Your task to perform on an android device: star an email in the gmail app Image 0: 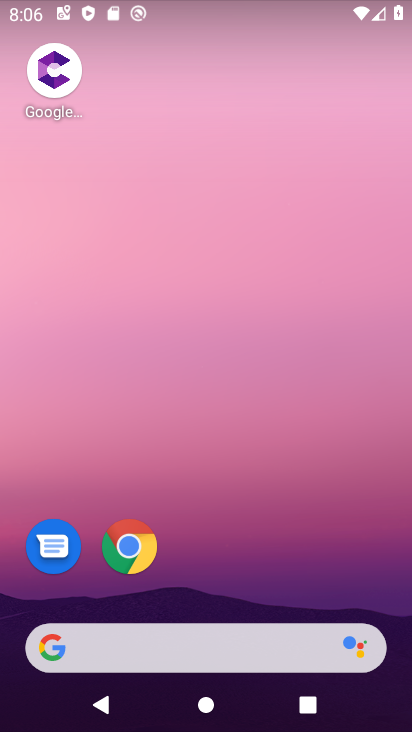
Step 0: drag from (202, 555) to (295, 21)
Your task to perform on an android device: star an email in the gmail app Image 1: 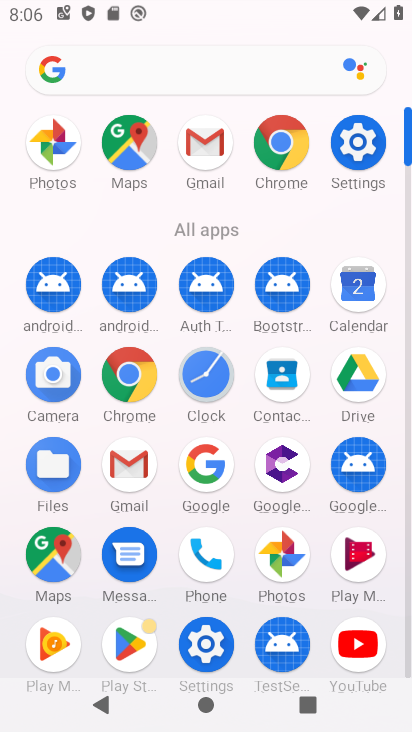
Step 1: click (127, 470)
Your task to perform on an android device: star an email in the gmail app Image 2: 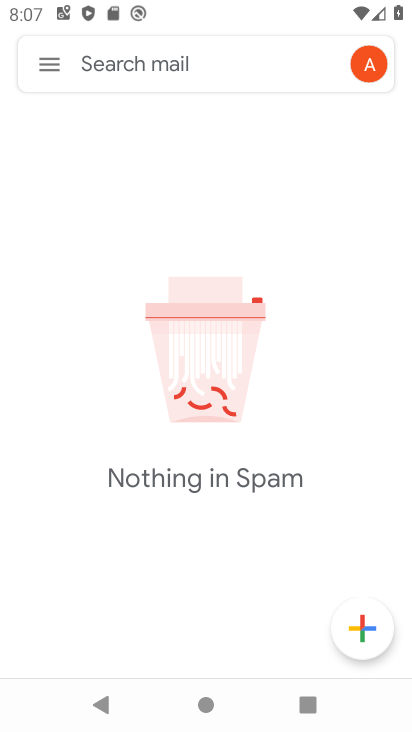
Step 2: click (50, 64)
Your task to perform on an android device: star an email in the gmail app Image 3: 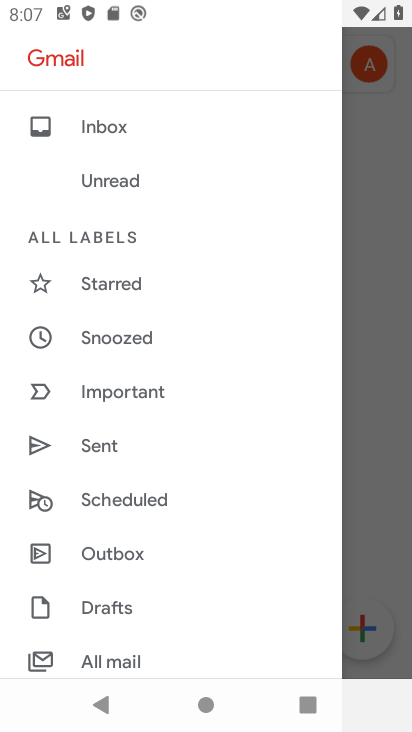
Step 3: click (94, 127)
Your task to perform on an android device: star an email in the gmail app Image 4: 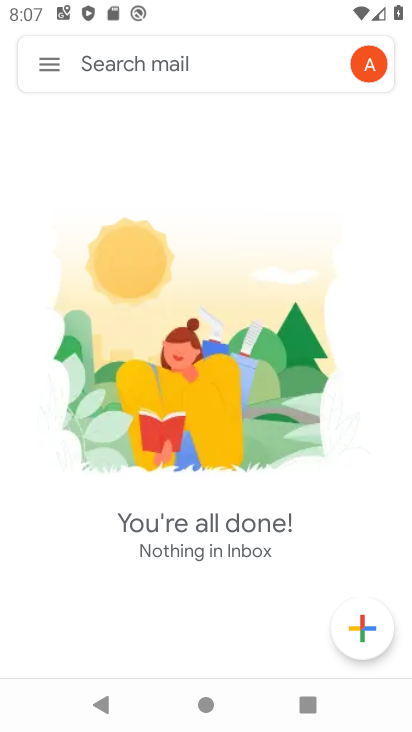
Step 4: task complete